Your task to perform on an android device: Search for sushi restaurants on Maps Image 0: 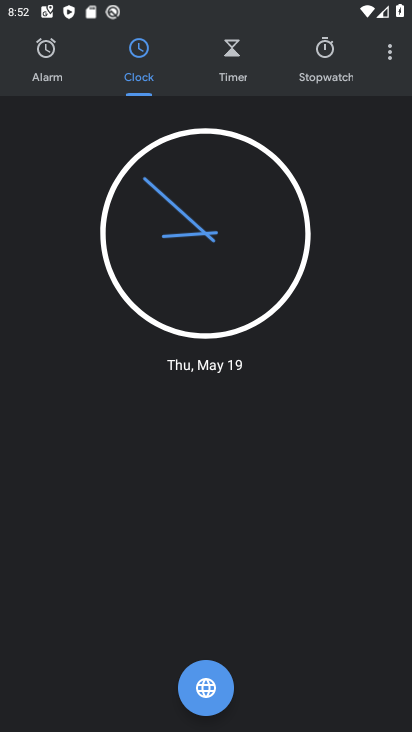
Step 0: press home button
Your task to perform on an android device: Search for sushi restaurants on Maps Image 1: 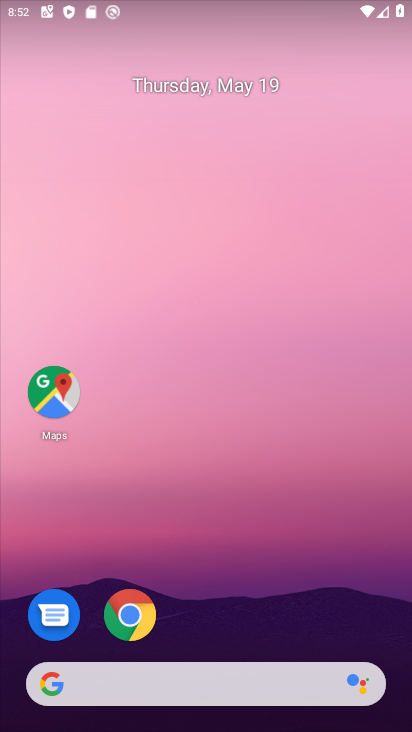
Step 1: drag from (344, 590) to (338, 129)
Your task to perform on an android device: Search for sushi restaurants on Maps Image 2: 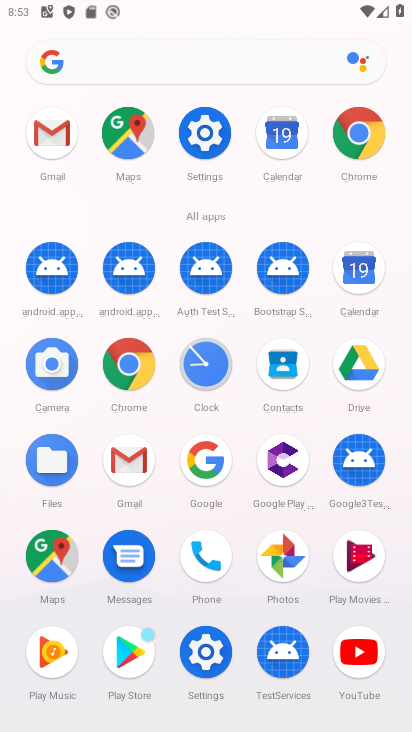
Step 2: click (69, 553)
Your task to perform on an android device: Search for sushi restaurants on Maps Image 3: 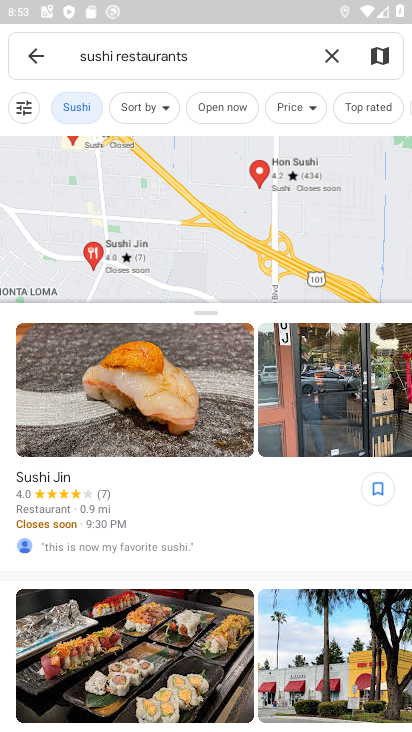
Step 3: task complete